Your task to perform on an android device: change text size in settings app Image 0: 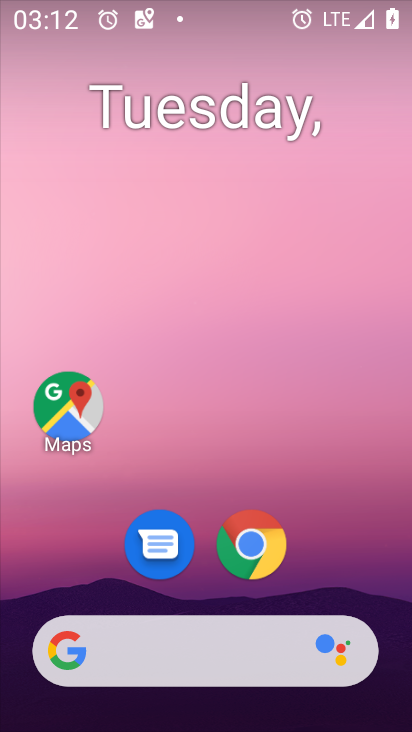
Step 0: drag from (334, 532) to (250, 105)
Your task to perform on an android device: change text size in settings app Image 1: 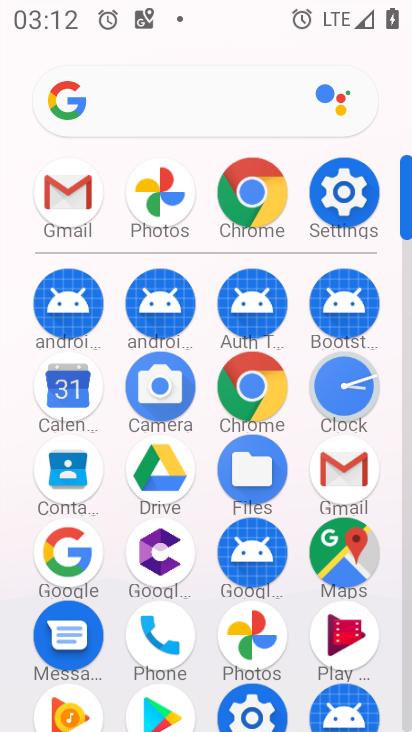
Step 1: drag from (10, 600) to (19, 244)
Your task to perform on an android device: change text size in settings app Image 2: 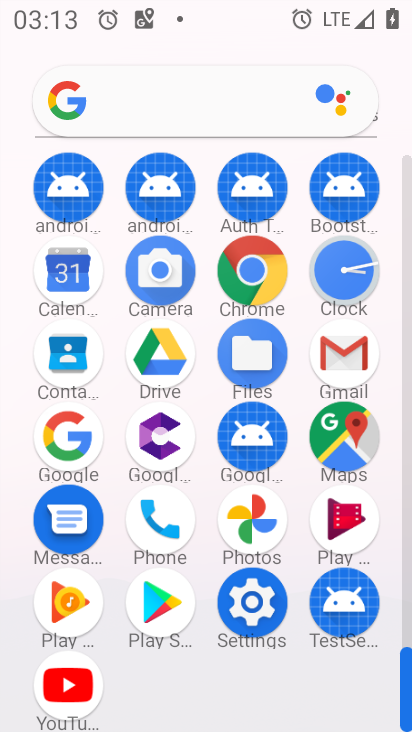
Step 2: drag from (0, 621) to (12, 208)
Your task to perform on an android device: change text size in settings app Image 3: 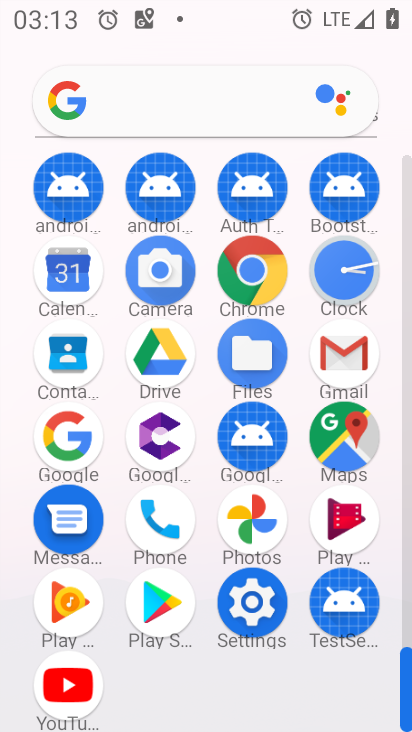
Step 3: click (250, 602)
Your task to perform on an android device: change text size in settings app Image 4: 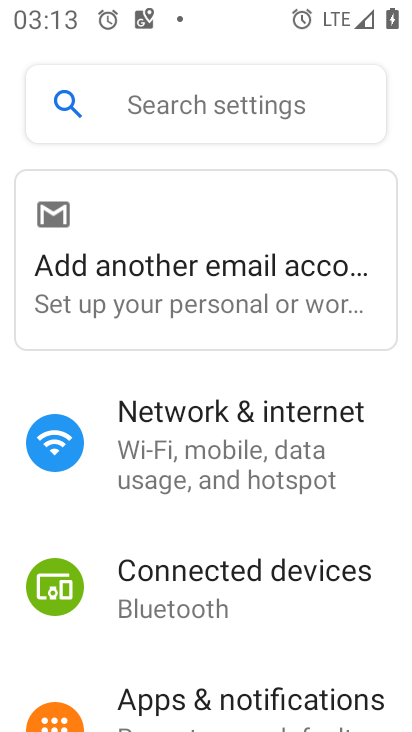
Step 4: drag from (301, 563) to (306, 192)
Your task to perform on an android device: change text size in settings app Image 5: 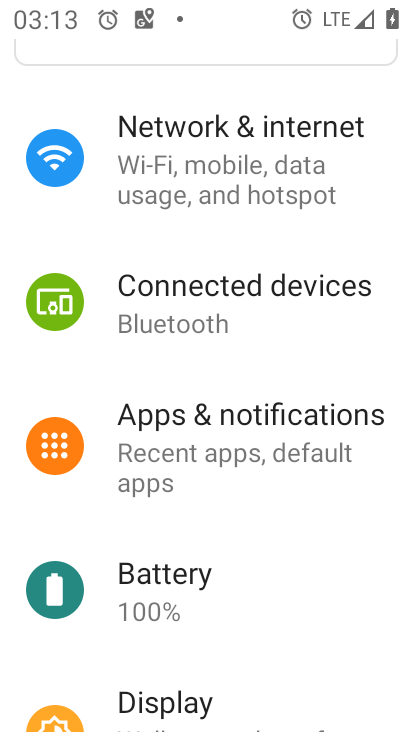
Step 5: drag from (303, 632) to (278, 198)
Your task to perform on an android device: change text size in settings app Image 6: 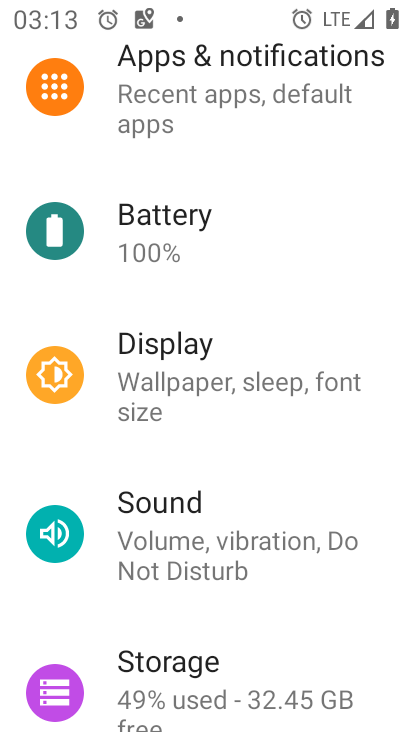
Step 6: click (186, 376)
Your task to perform on an android device: change text size in settings app Image 7: 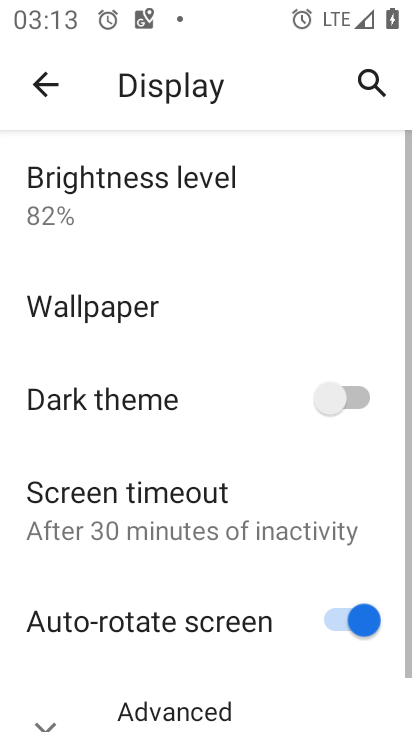
Step 7: drag from (199, 603) to (221, 195)
Your task to perform on an android device: change text size in settings app Image 8: 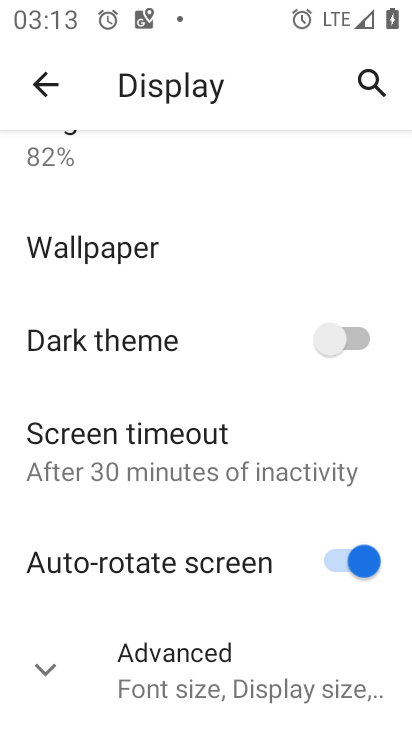
Step 8: click (56, 656)
Your task to perform on an android device: change text size in settings app Image 9: 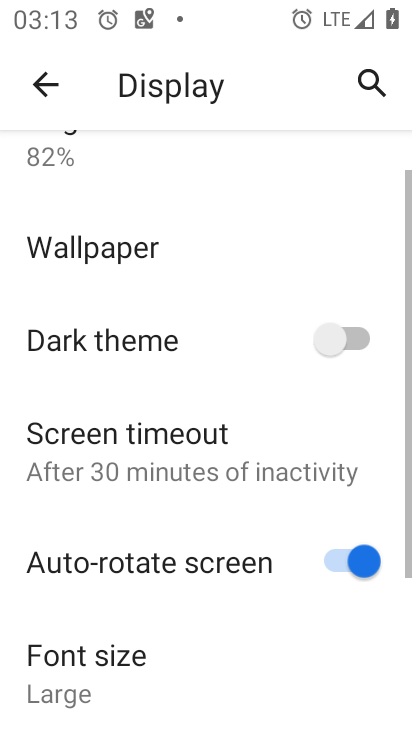
Step 9: drag from (159, 662) to (199, 225)
Your task to perform on an android device: change text size in settings app Image 10: 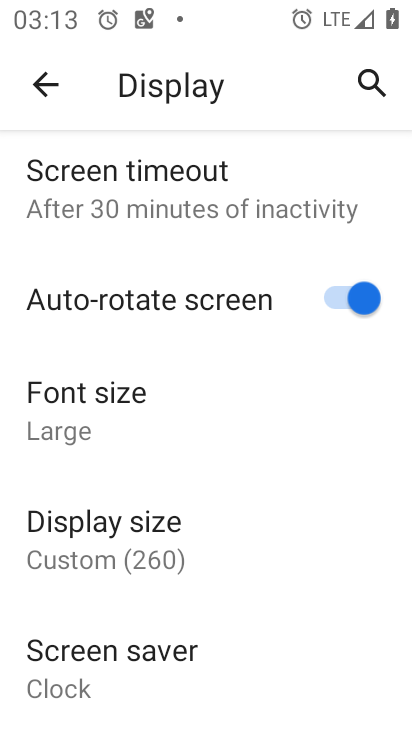
Step 10: click (121, 400)
Your task to perform on an android device: change text size in settings app Image 11: 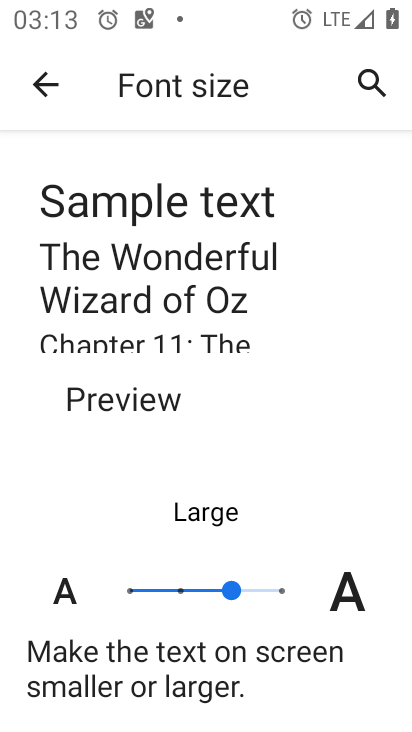
Step 11: click (274, 589)
Your task to perform on an android device: change text size in settings app Image 12: 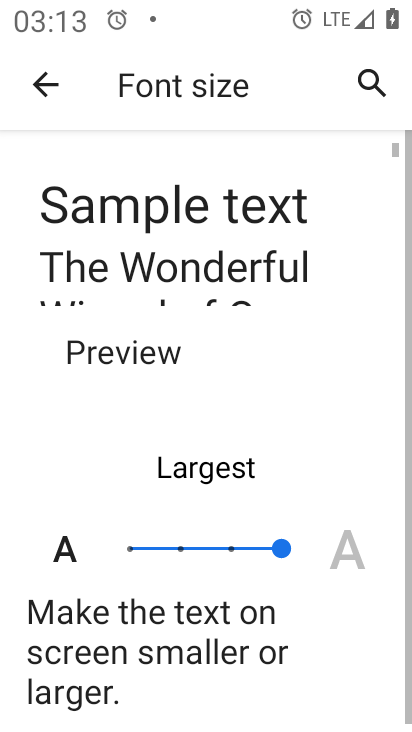
Step 12: task complete